Your task to perform on an android device: Open location settings Image 0: 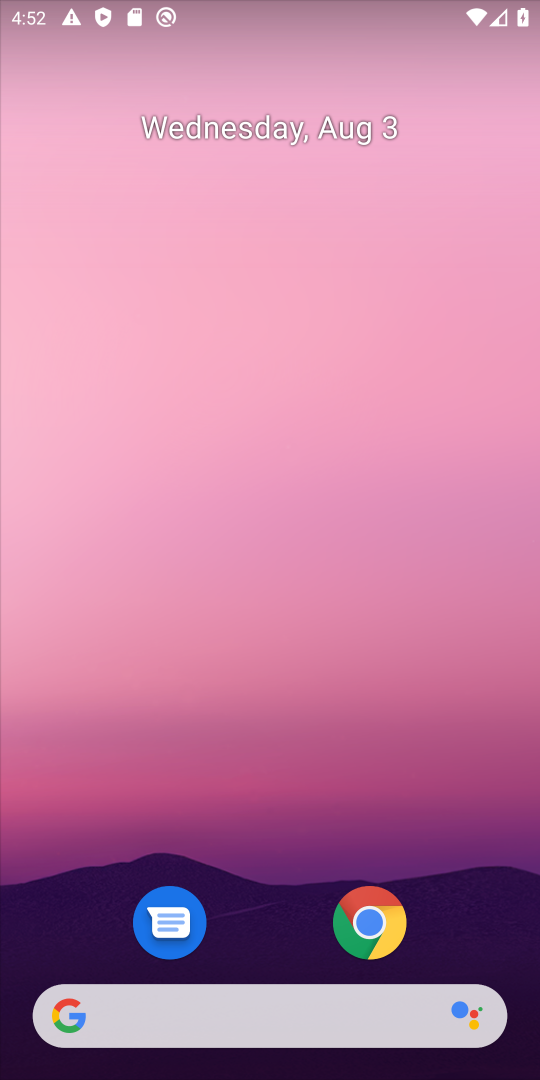
Step 0: drag from (477, 940) to (384, 251)
Your task to perform on an android device: Open location settings Image 1: 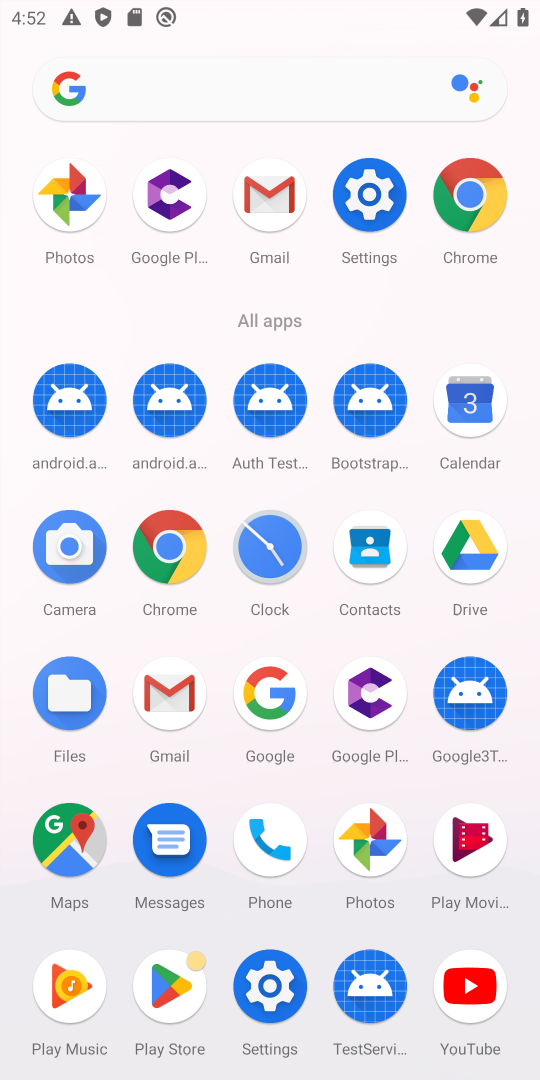
Step 1: click (388, 202)
Your task to perform on an android device: Open location settings Image 2: 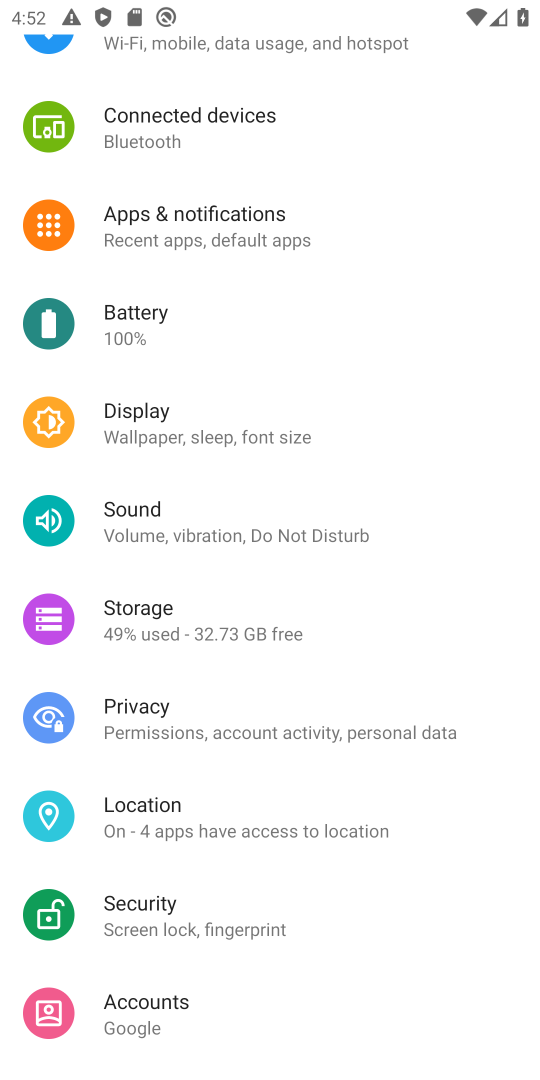
Step 2: click (329, 827)
Your task to perform on an android device: Open location settings Image 3: 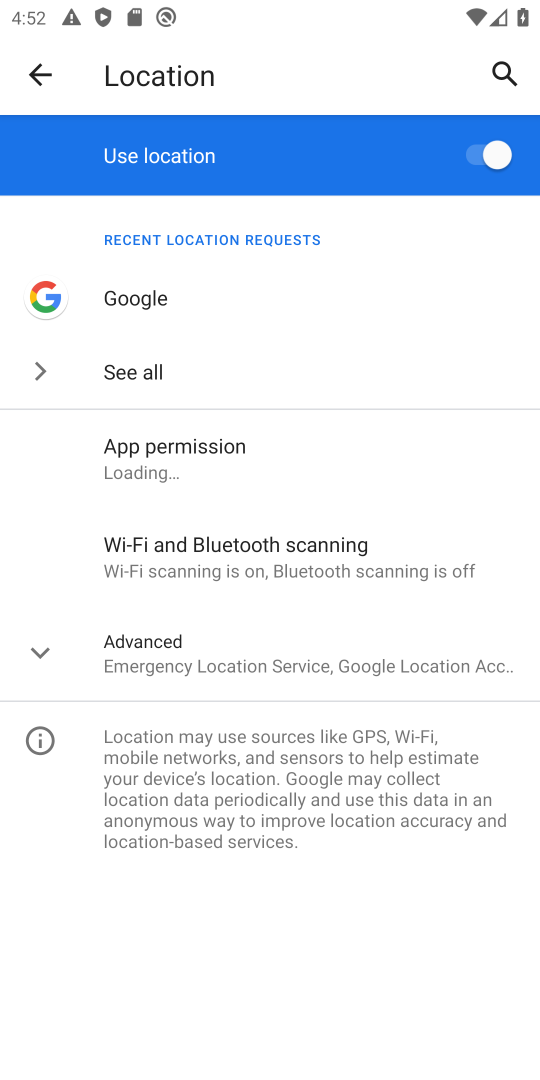
Step 3: task complete